Your task to perform on an android device: turn on notifications settings in the gmail app Image 0: 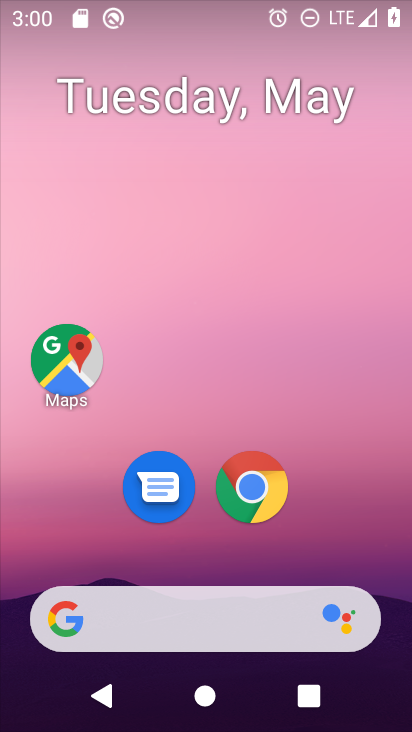
Step 0: drag from (0, 682) to (186, 200)
Your task to perform on an android device: turn on notifications settings in the gmail app Image 1: 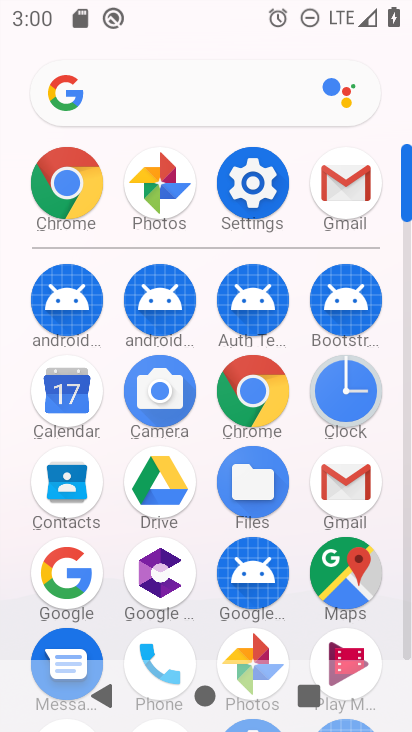
Step 1: click (249, 184)
Your task to perform on an android device: turn on notifications settings in the gmail app Image 2: 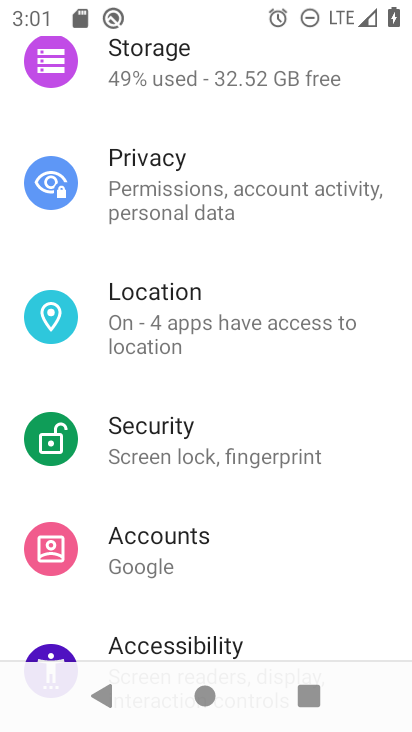
Step 2: task complete